Your task to perform on an android device: toggle airplane mode Image 0: 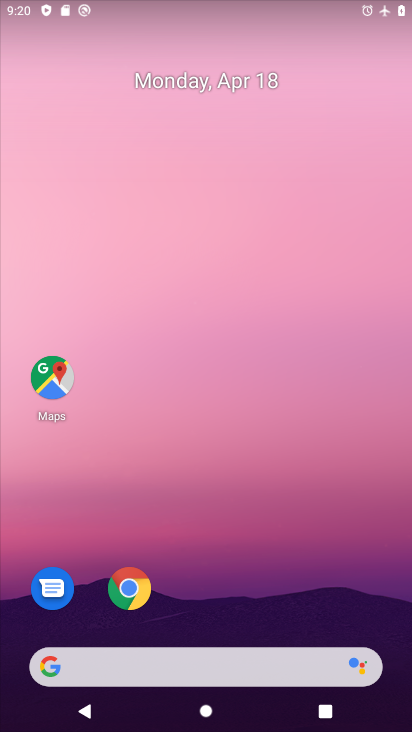
Step 0: drag from (275, 502) to (309, 177)
Your task to perform on an android device: toggle airplane mode Image 1: 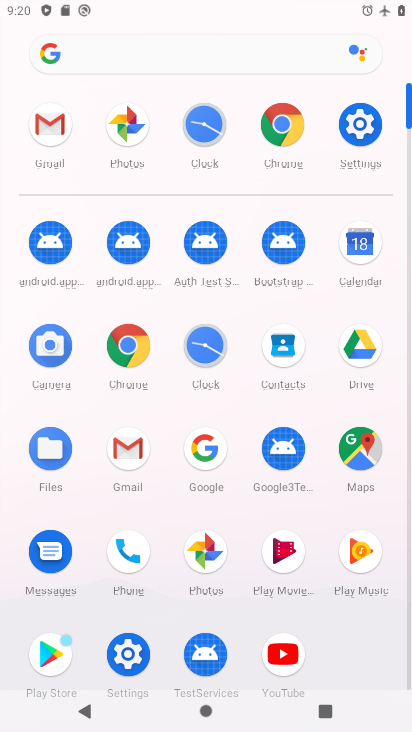
Step 1: click (362, 122)
Your task to perform on an android device: toggle airplane mode Image 2: 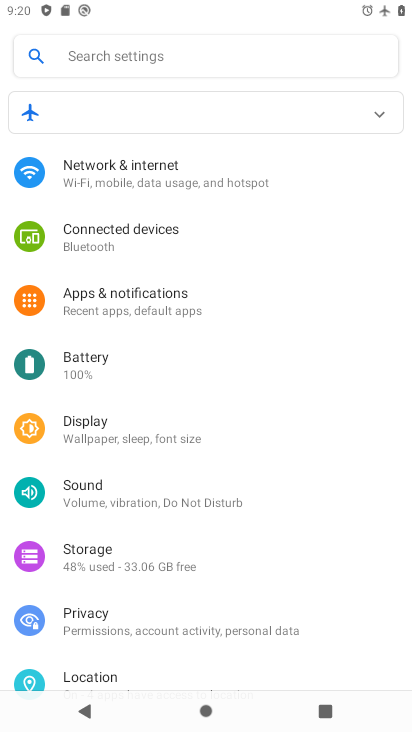
Step 2: click (231, 174)
Your task to perform on an android device: toggle airplane mode Image 3: 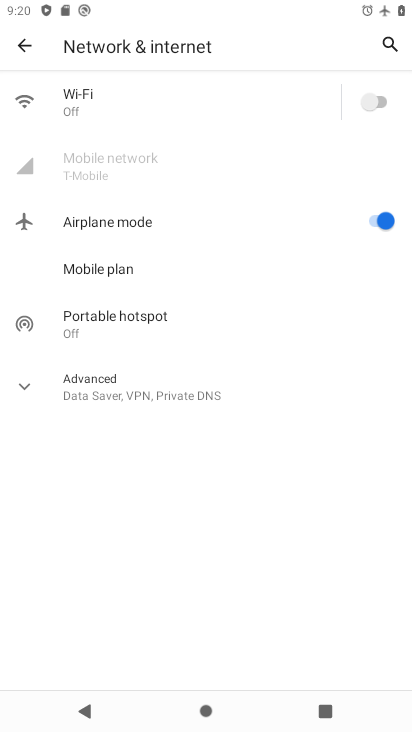
Step 3: click (377, 213)
Your task to perform on an android device: toggle airplane mode Image 4: 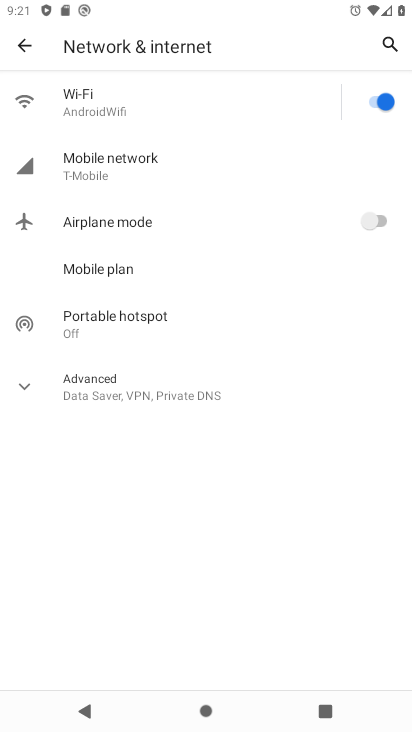
Step 4: task complete